Your task to perform on an android device: What is the news today? Image 0: 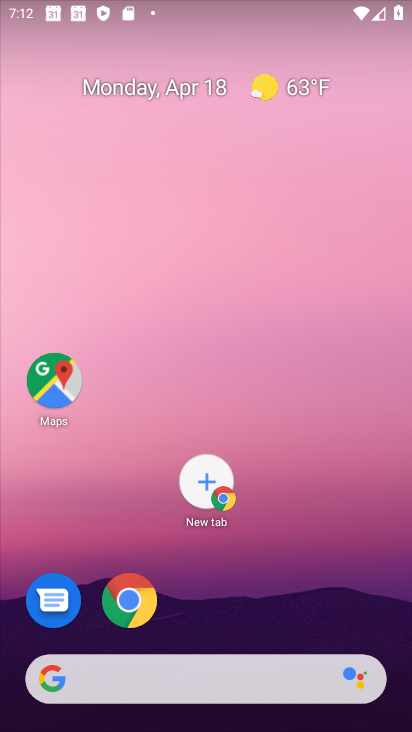
Step 0: drag from (76, 303) to (385, 323)
Your task to perform on an android device: What is the news today? Image 1: 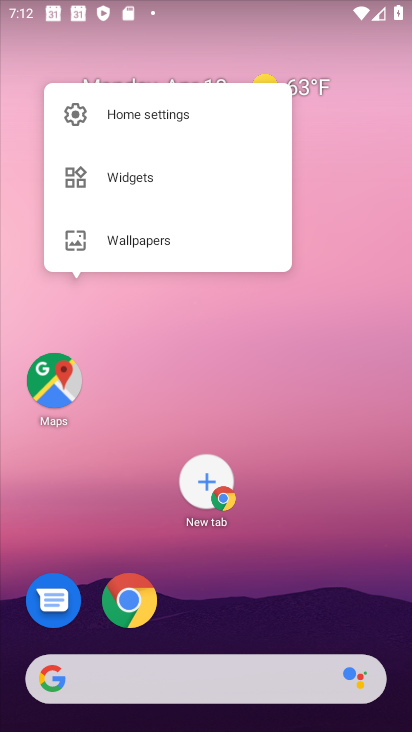
Step 1: drag from (22, 308) to (410, 303)
Your task to perform on an android device: What is the news today? Image 2: 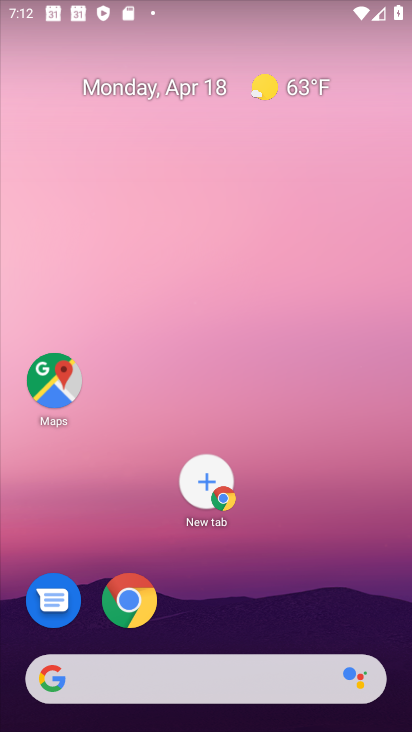
Step 2: drag from (159, 326) to (29, 328)
Your task to perform on an android device: What is the news today? Image 3: 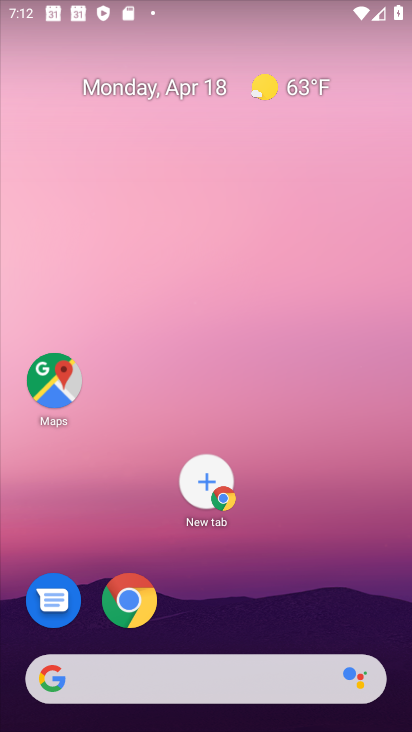
Step 3: click (170, 679)
Your task to perform on an android device: What is the news today? Image 4: 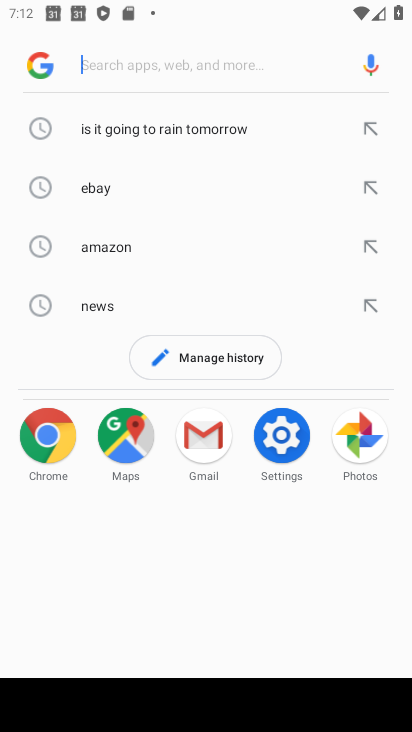
Step 4: task complete